Your task to perform on an android device: check battery use Image 0: 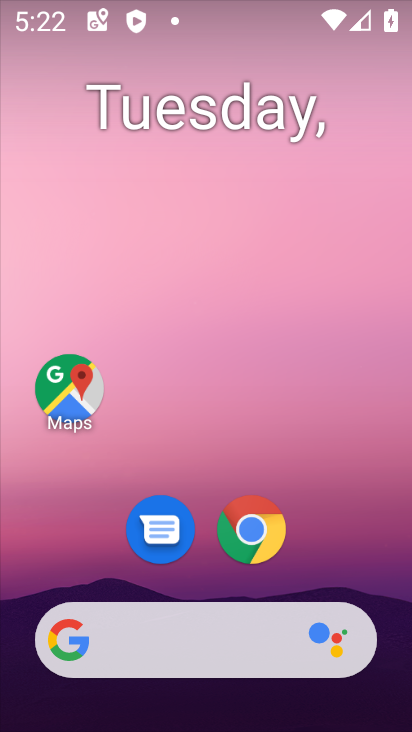
Step 0: drag from (359, 511) to (327, 93)
Your task to perform on an android device: check battery use Image 1: 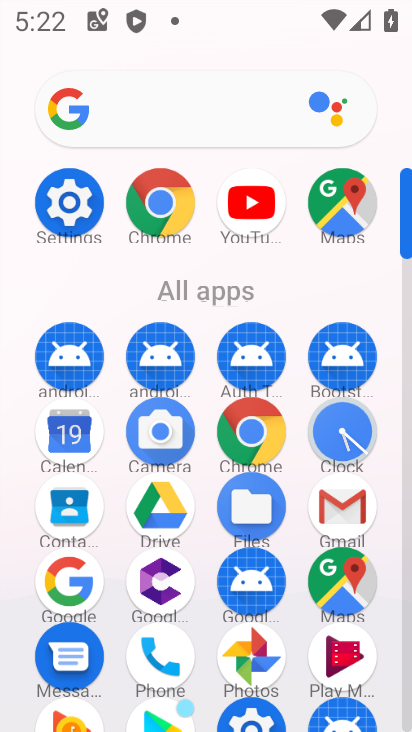
Step 1: click (43, 172)
Your task to perform on an android device: check battery use Image 2: 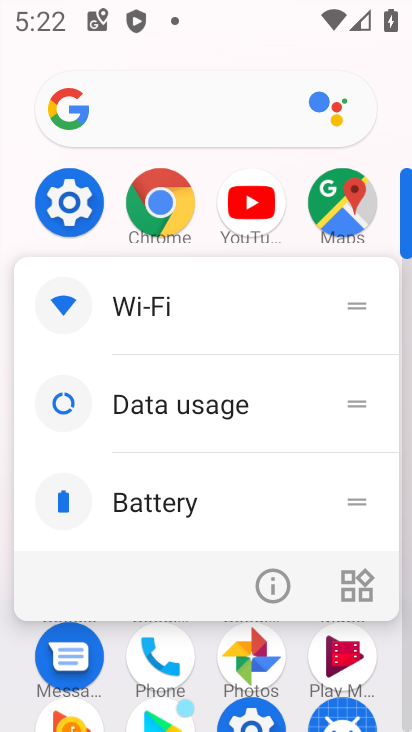
Step 2: click (41, 189)
Your task to perform on an android device: check battery use Image 3: 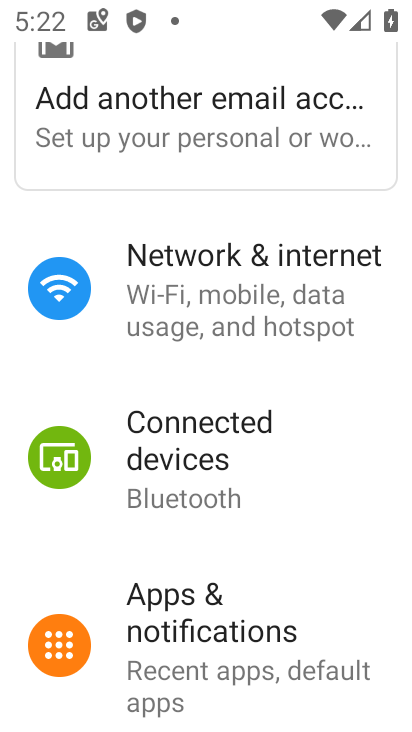
Step 3: drag from (359, 336) to (349, 267)
Your task to perform on an android device: check battery use Image 4: 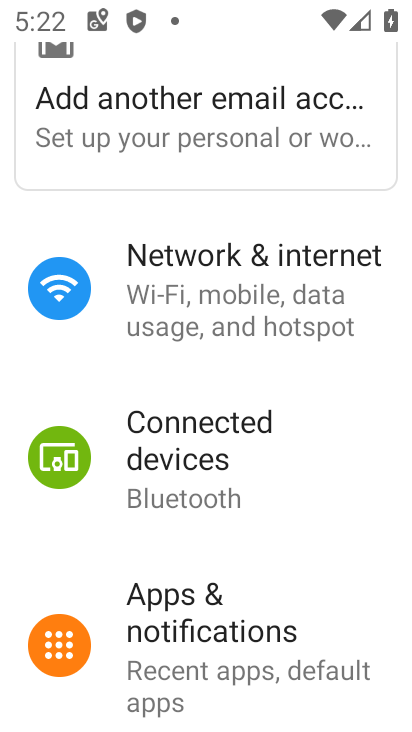
Step 4: drag from (398, 407) to (383, 220)
Your task to perform on an android device: check battery use Image 5: 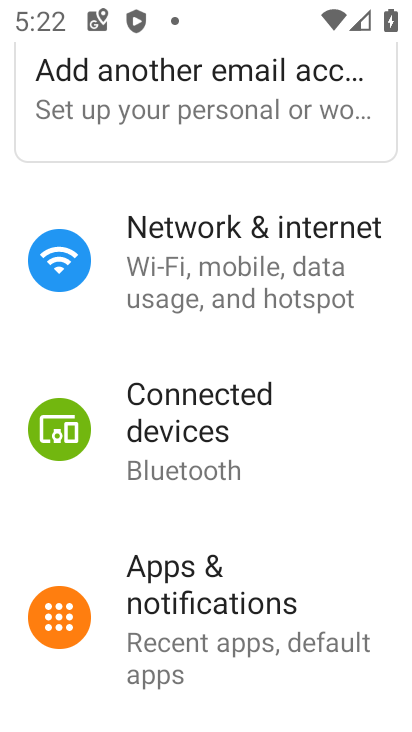
Step 5: drag from (384, 665) to (400, 299)
Your task to perform on an android device: check battery use Image 6: 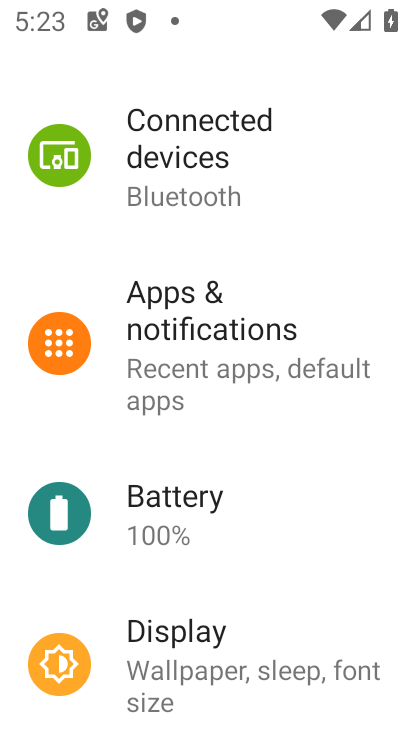
Step 6: drag from (394, 451) to (390, 307)
Your task to perform on an android device: check battery use Image 7: 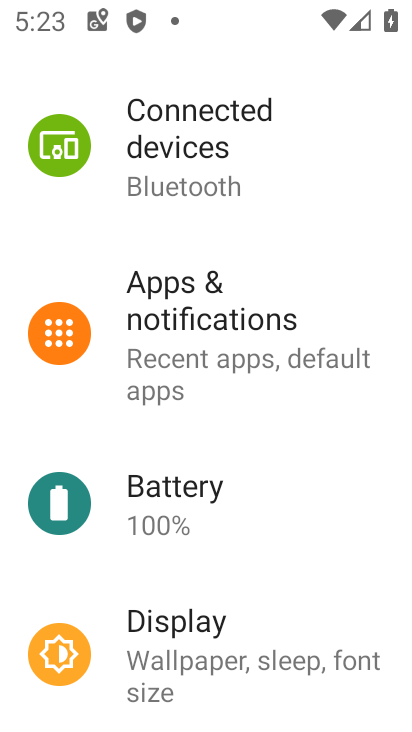
Step 7: click (177, 490)
Your task to perform on an android device: check battery use Image 8: 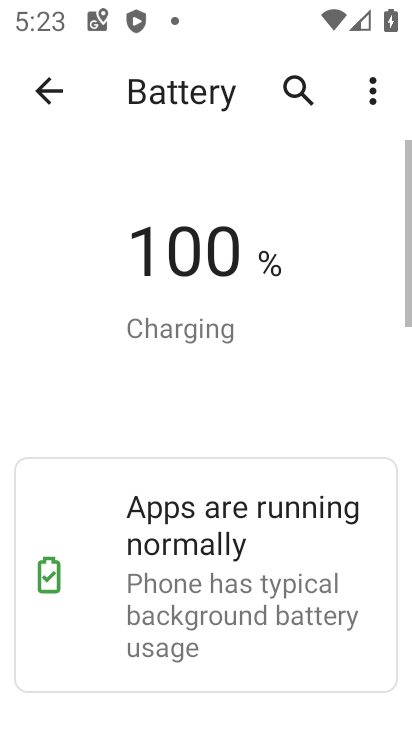
Step 8: click (370, 92)
Your task to perform on an android device: check battery use Image 9: 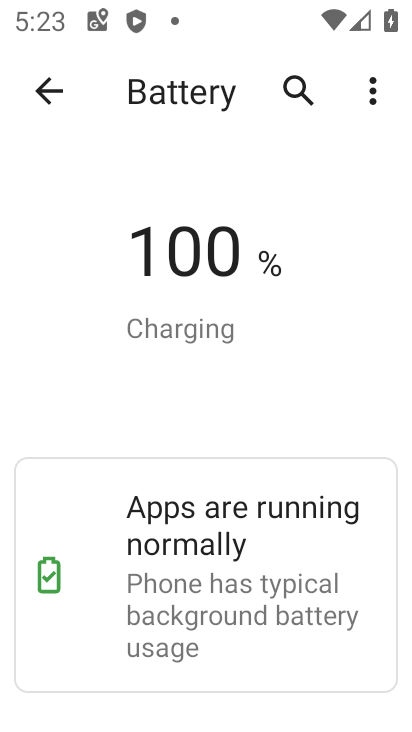
Step 9: click (368, 89)
Your task to perform on an android device: check battery use Image 10: 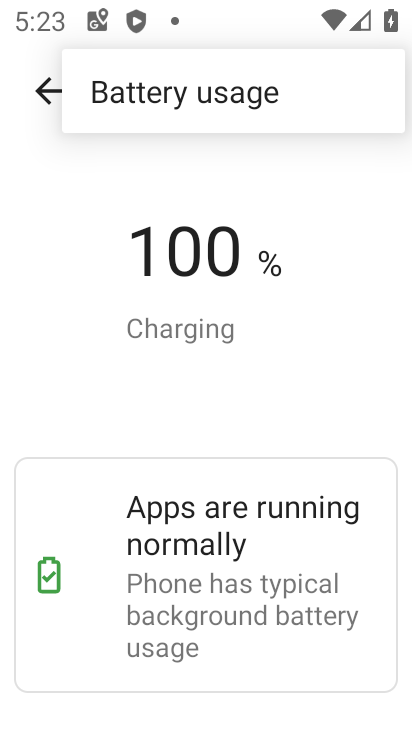
Step 10: click (241, 92)
Your task to perform on an android device: check battery use Image 11: 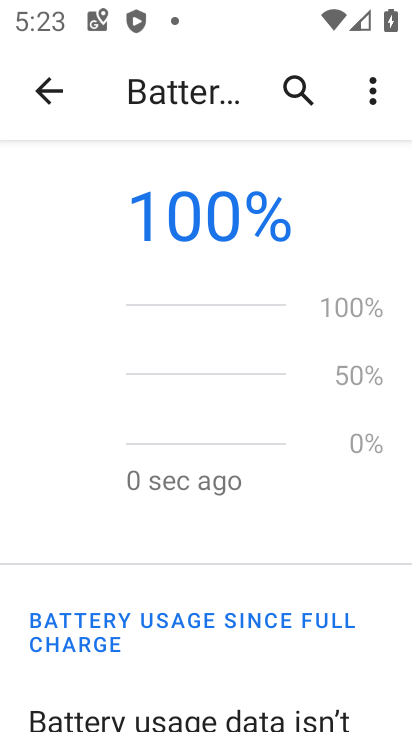
Step 11: task complete